Your task to perform on an android device: refresh tabs in the chrome app Image 0: 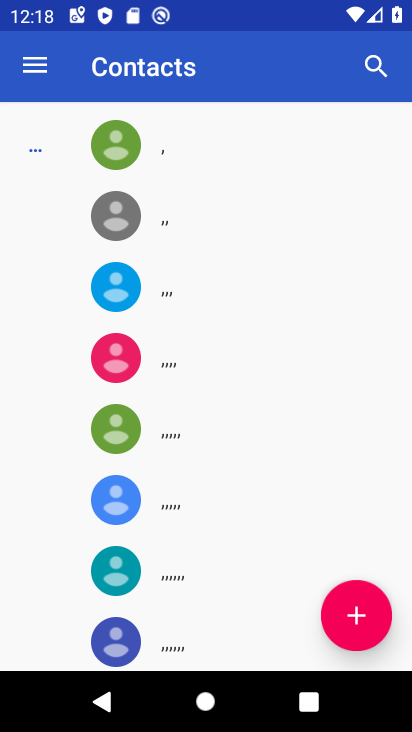
Step 0: press home button
Your task to perform on an android device: refresh tabs in the chrome app Image 1: 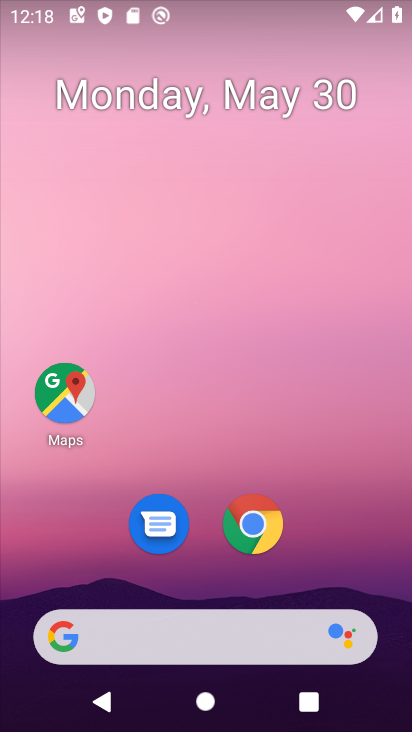
Step 1: click (245, 531)
Your task to perform on an android device: refresh tabs in the chrome app Image 2: 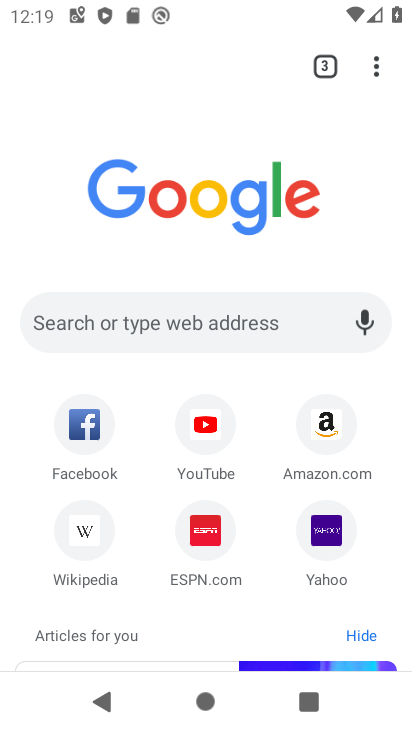
Step 2: click (374, 67)
Your task to perform on an android device: refresh tabs in the chrome app Image 3: 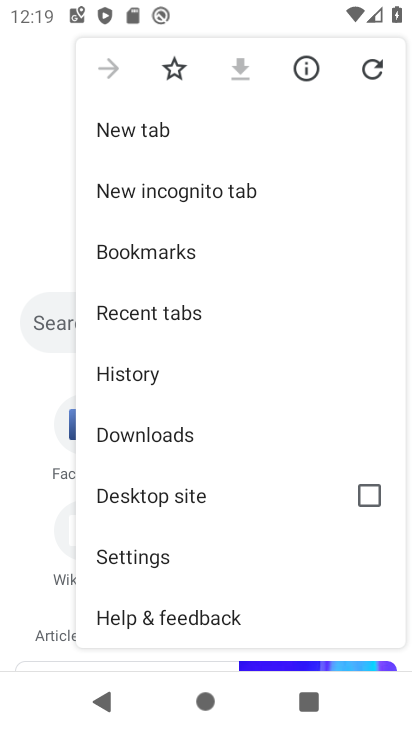
Step 3: click (374, 64)
Your task to perform on an android device: refresh tabs in the chrome app Image 4: 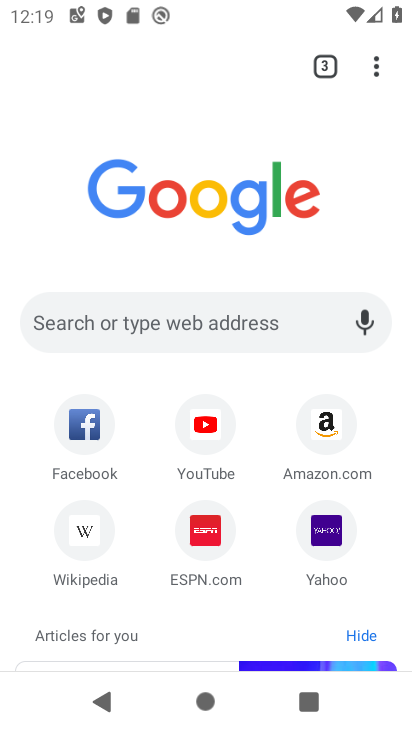
Step 4: task complete